Your task to perform on an android device: install app "VLC for Android" Image 0: 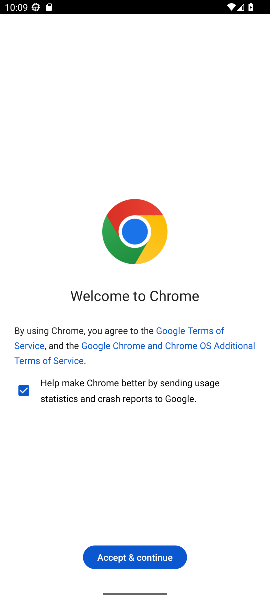
Step 0: press home button
Your task to perform on an android device: install app "VLC for Android" Image 1: 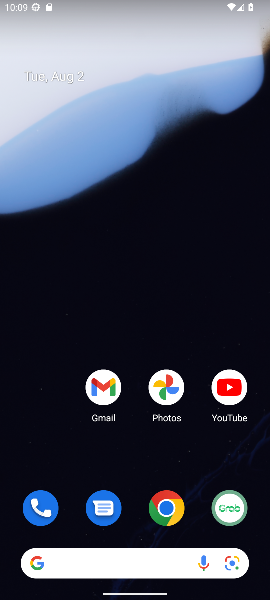
Step 1: drag from (126, 466) to (124, 77)
Your task to perform on an android device: install app "VLC for Android" Image 2: 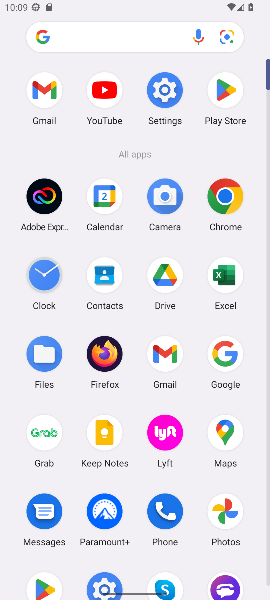
Step 2: click (225, 95)
Your task to perform on an android device: install app "VLC for Android" Image 3: 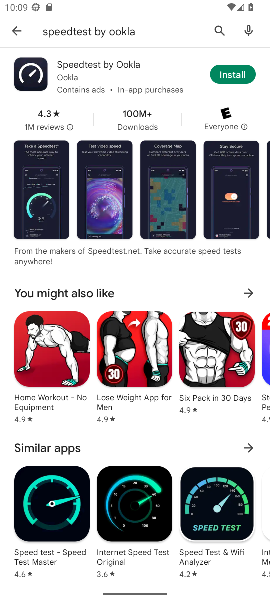
Step 3: click (215, 30)
Your task to perform on an android device: install app "VLC for Android" Image 4: 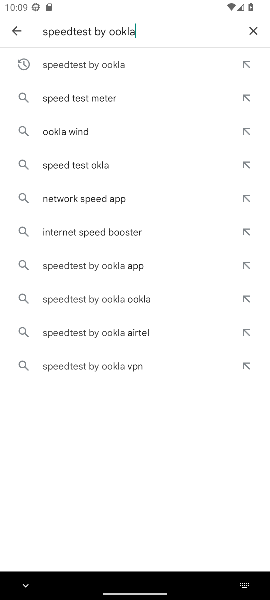
Step 4: click (252, 28)
Your task to perform on an android device: install app "VLC for Android" Image 5: 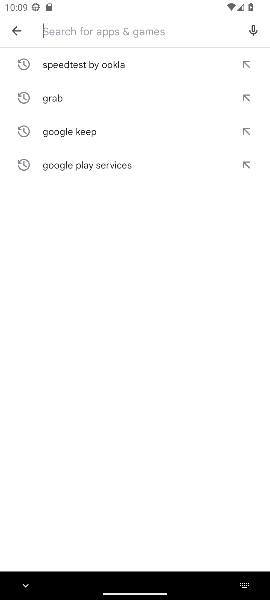
Step 5: type "VLC for Android"
Your task to perform on an android device: install app "VLC for Android" Image 6: 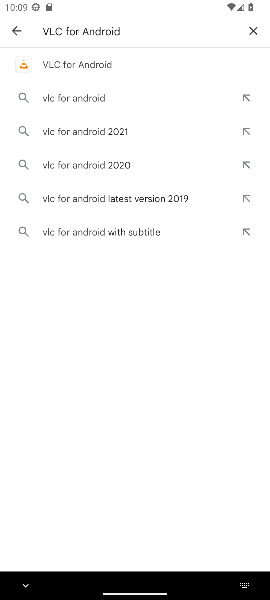
Step 6: click (90, 58)
Your task to perform on an android device: install app "VLC for Android" Image 7: 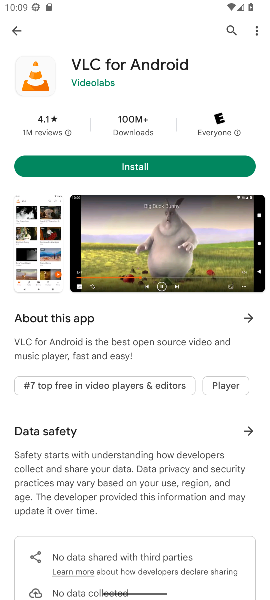
Step 7: click (132, 168)
Your task to perform on an android device: install app "VLC for Android" Image 8: 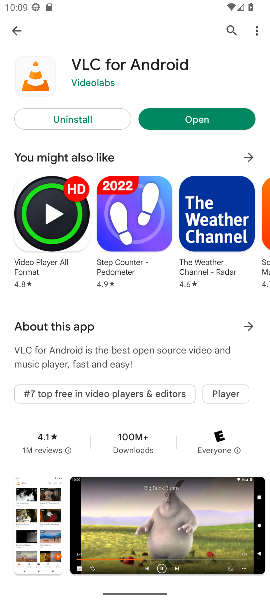
Step 8: task complete